Your task to perform on an android device: open app "DuckDuckGo Privacy Browser" (install if not already installed) and go to login screen Image 0: 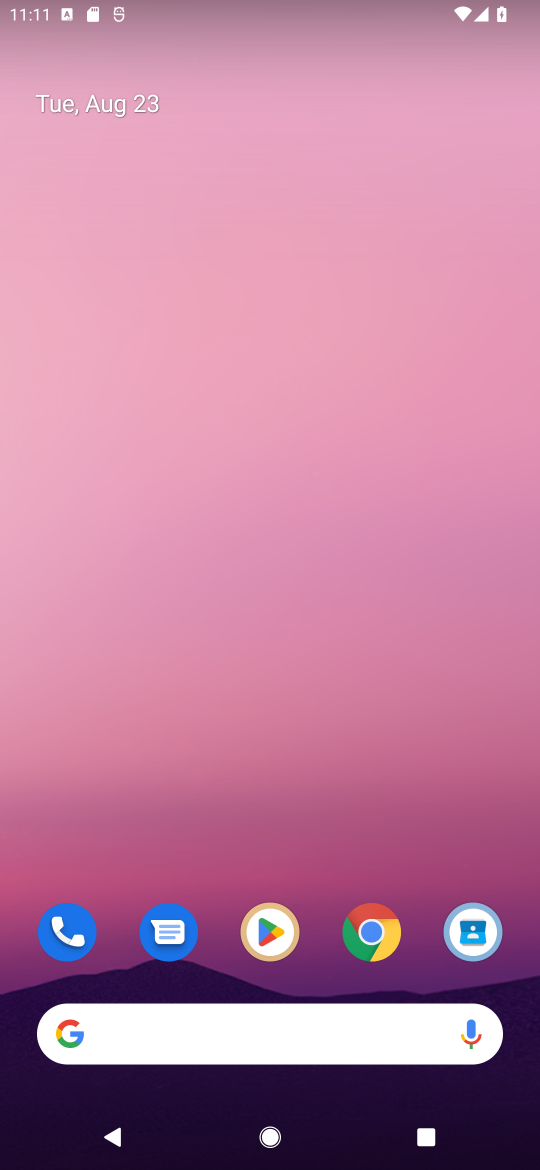
Step 0: click (255, 925)
Your task to perform on an android device: open app "DuckDuckGo Privacy Browser" (install if not already installed) and go to login screen Image 1: 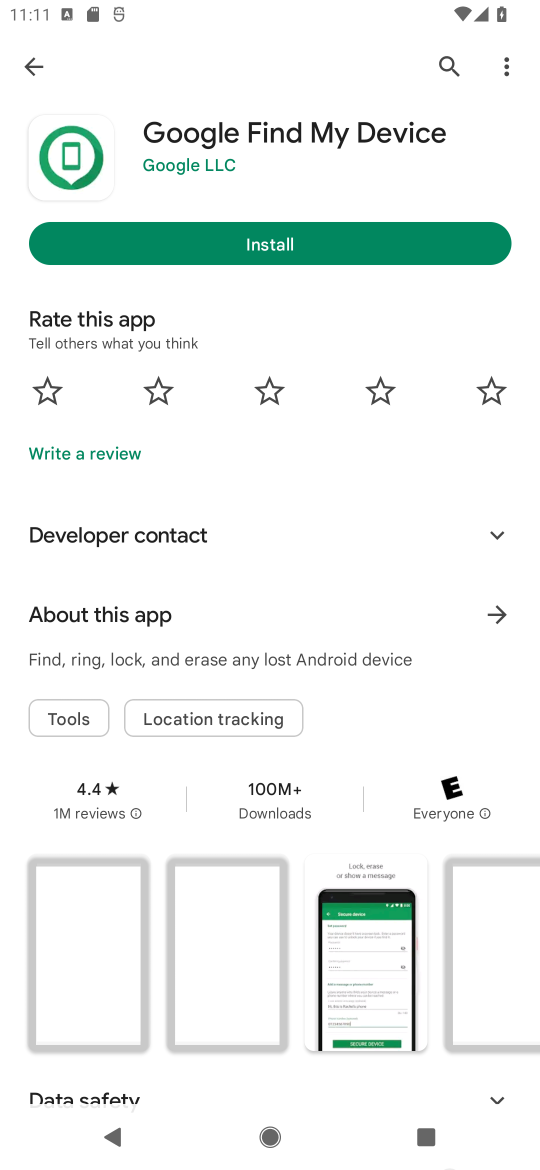
Step 1: click (450, 56)
Your task to perform on an android device: open app "DuckDuckGo Privacy Browser" (install if not already installed) and go to login screen Image 2: 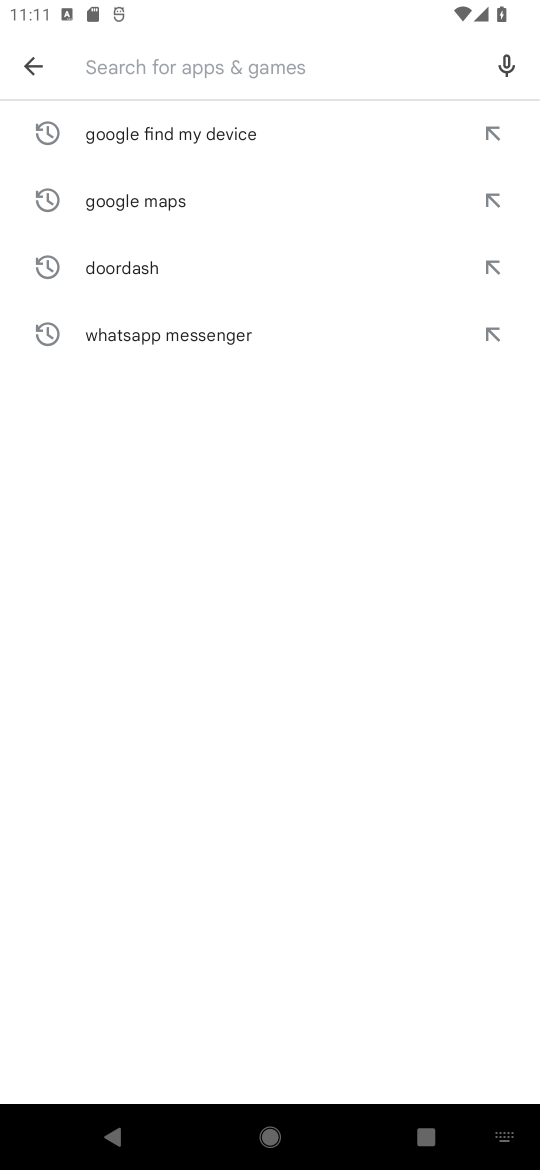
Step 2: click (126, 52)
Your task to perform on an android device: open app "DuckDuckGo Privacy Browser" (install if not already installed) and go to login screen Image 3: 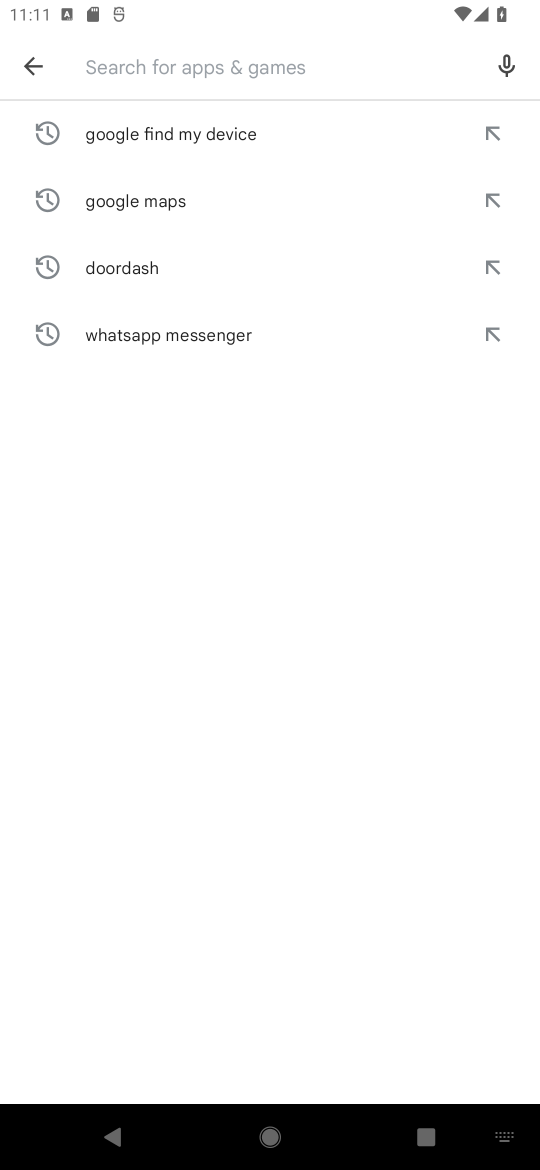
Step 3: type "DuckDuckGo Privacy Browser"
Your task to perform on an android device: open app "DuckDuckGo Privacy Browser" (install if not already installed) and go to login screen Image 4: 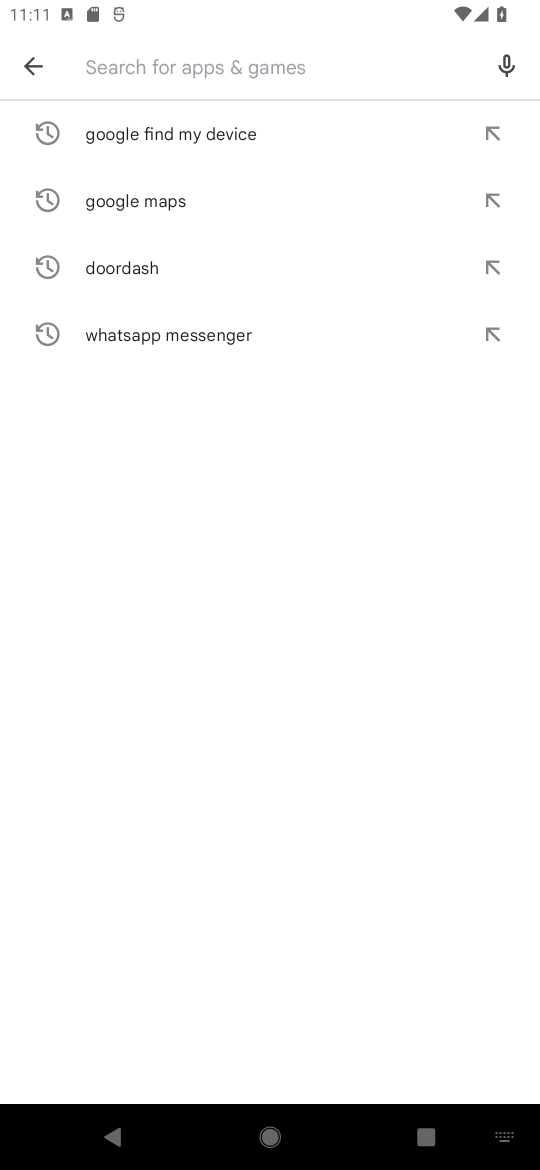
Step 4: click (326, 680)
Your task to perform on an android device: open app "DuckDuckGo Privacy Browser" (install if not already installed) and go to login screen Image 5: 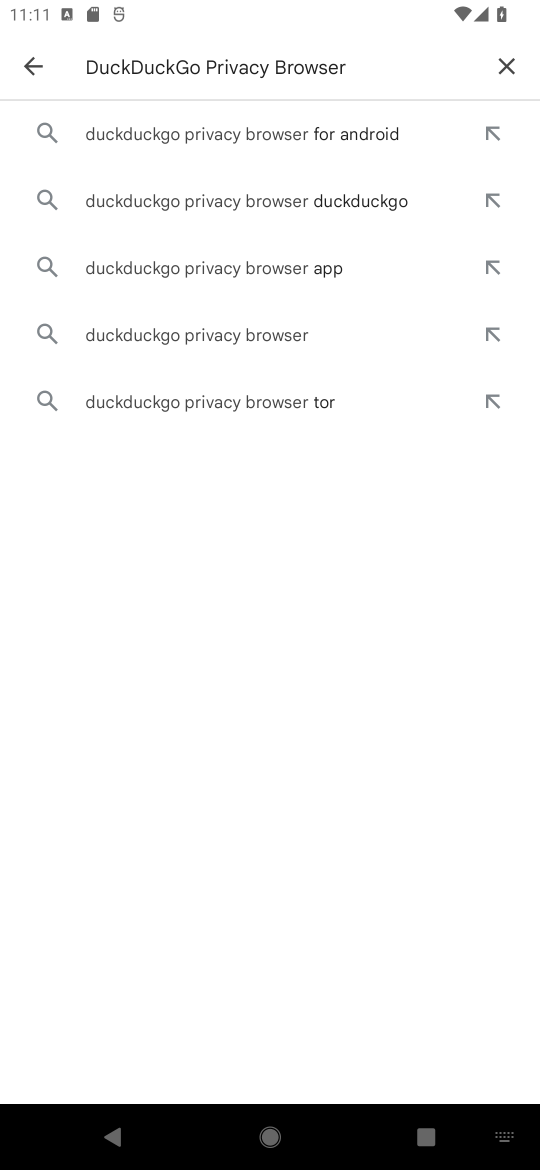
Step 5: click (293, 135)
Your task to perform on an android device: open app "DuckDuckGo Privacy Browser" (install if not already installed) and go to login screen Image 6: 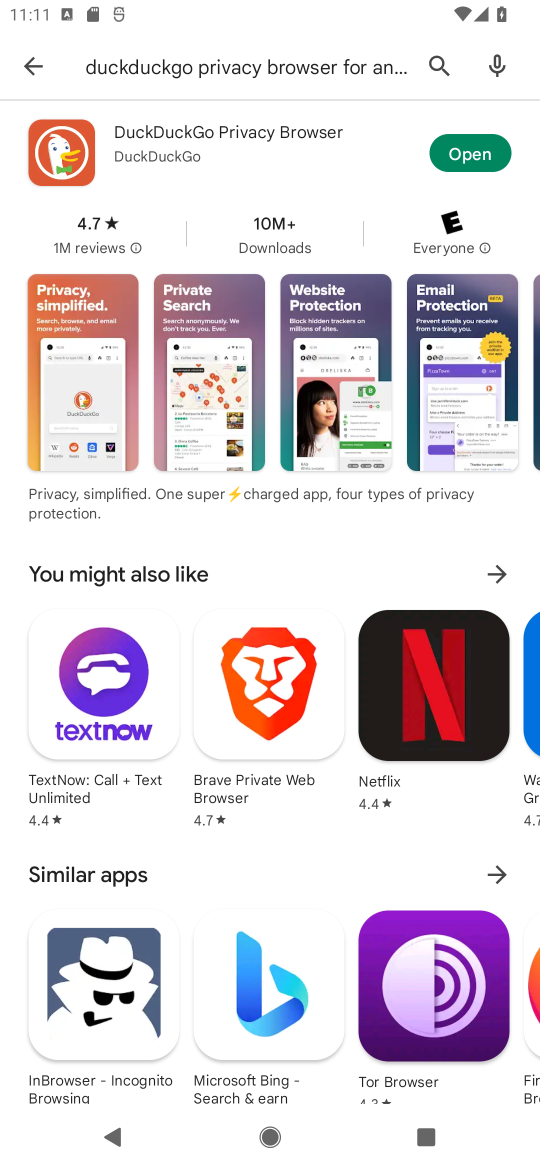
Step 6: click (451, 144)
Your task to perform on an android device: open app "DuckDuckGo Privacy Browser" (install if not already installed) and go to login screen Image 7: 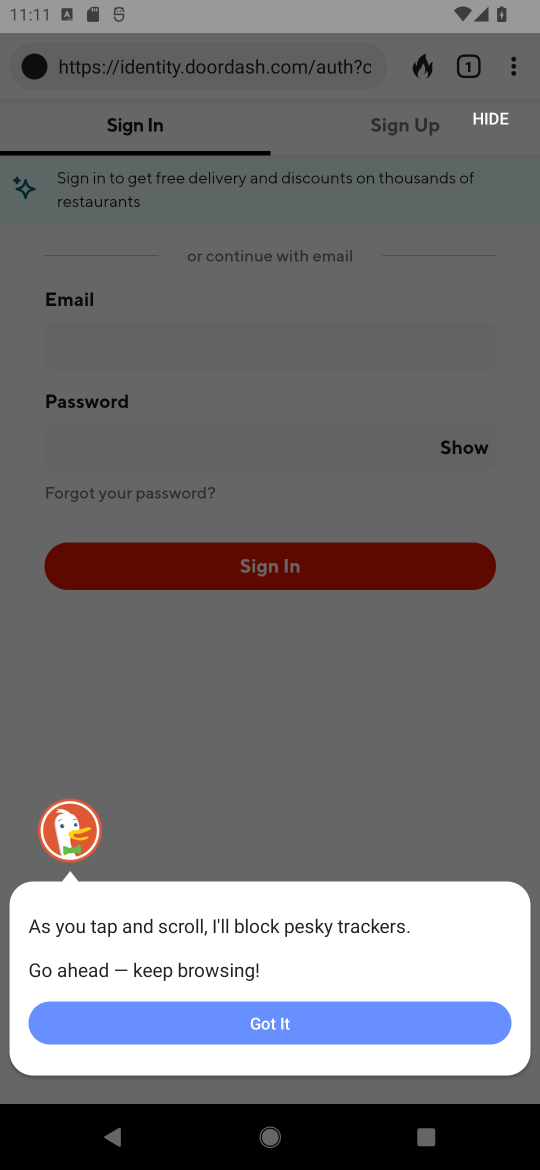
Step 7: click (282, 1035)
Your task to perform on an android device: open app "DuckDuckGo Privacy Browser" (install if not already installed) and go to login screen Image 8: 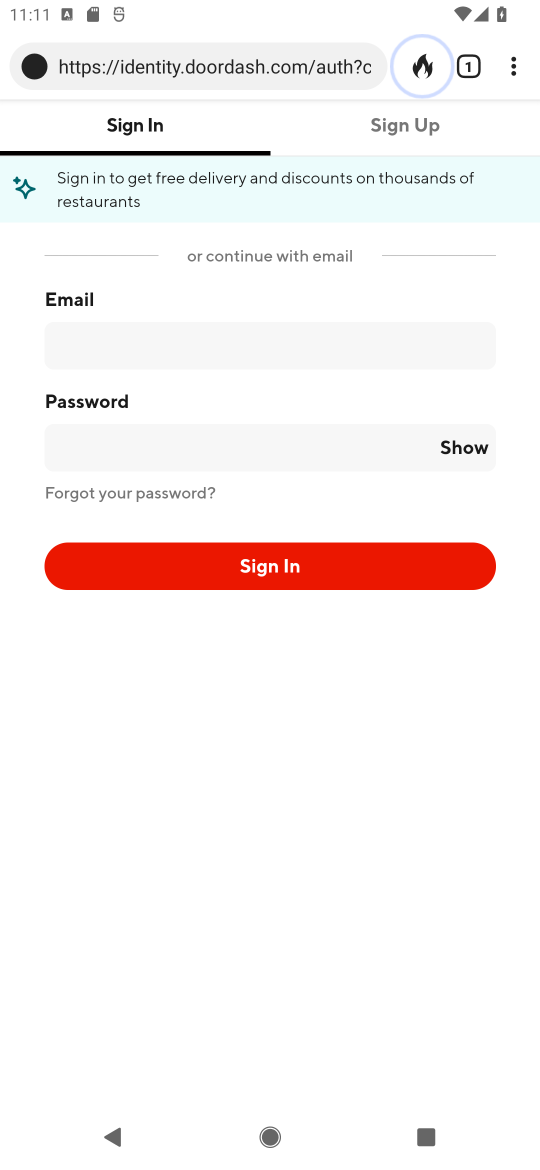
Step 8: task complete